Your task to perform on an android device: Open the calendar and show me this week's events? Image 0: 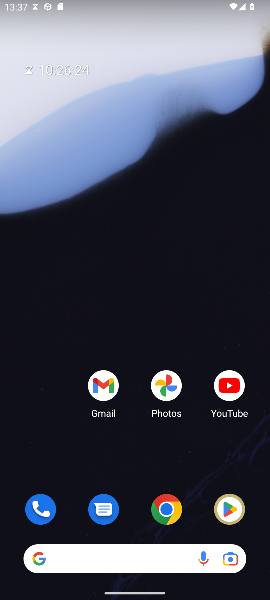
Step 0: press home button
Your task to perform on an android device: Open the calendar and show me this week's events? Image 1: 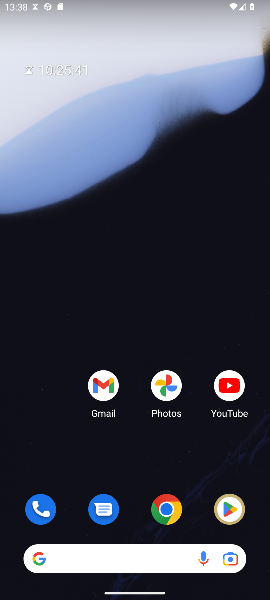
Step 1: drag from (128, 518) to (179, 173)
Your task to perform on an android device: Open the calendar and show me this week's events? Image 2: 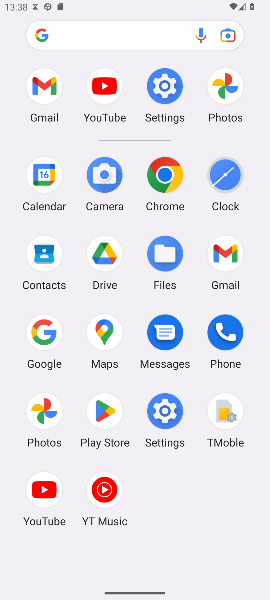
Step 2: click (41, 167)
Your task to perform on an android device: Open the calendar and show me this week's events? Image 3: 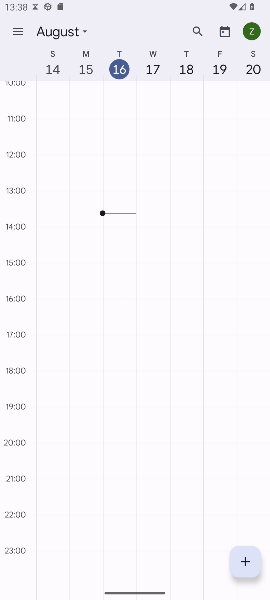
Step 3: click (13, 27)
Your task to perform on an android device: Open the calendar and show me this week's events? Image 4: 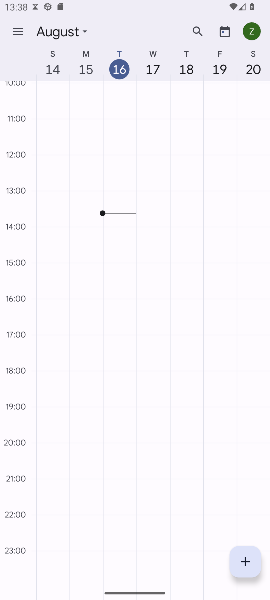
Step 4: click (21, 32)
Your task to perform on an android device: Open the calendar and show me this week's events? Image 5: 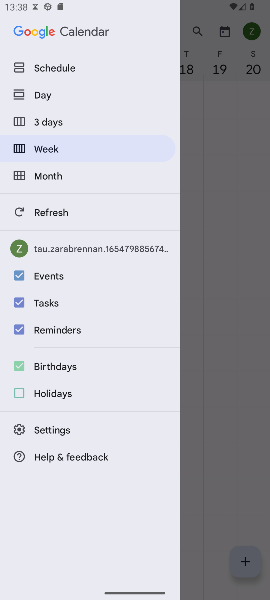
Step 5: click (38, 159)
Your task to perform on an android device: Open the calendar and show me this week's events? Image 6: 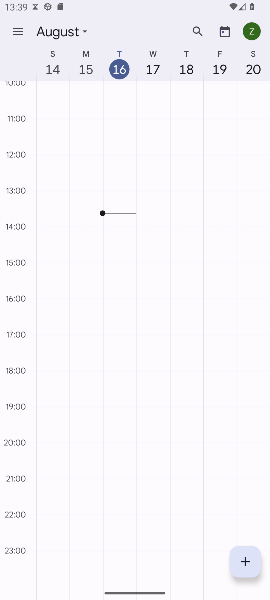
Step 6: task complete